Your task to perform on an android device: turn on location history Image 0: 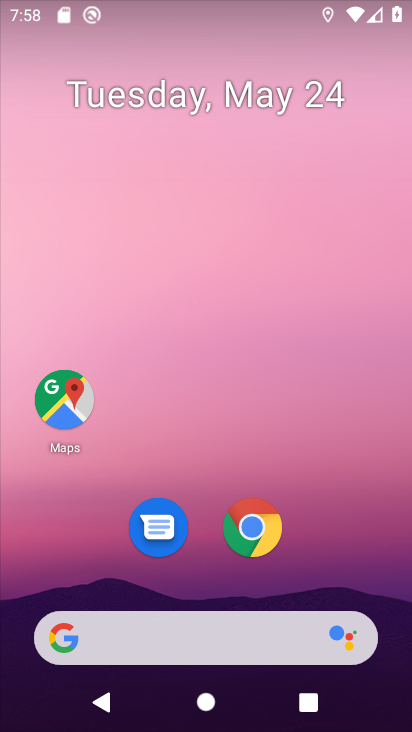
Step 0: drag from (301, 546) to (211, 177)
Your task to perform on an android device: turn on location history Image 1: 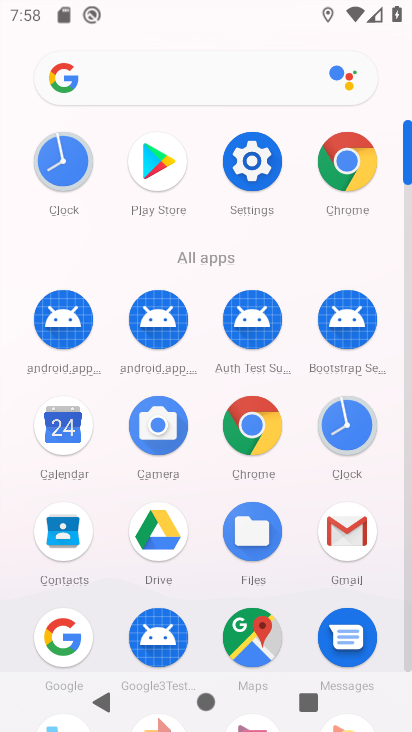
Step 1: click (240, 183)
Your task to perform on an android device: turn on location history Image 2: 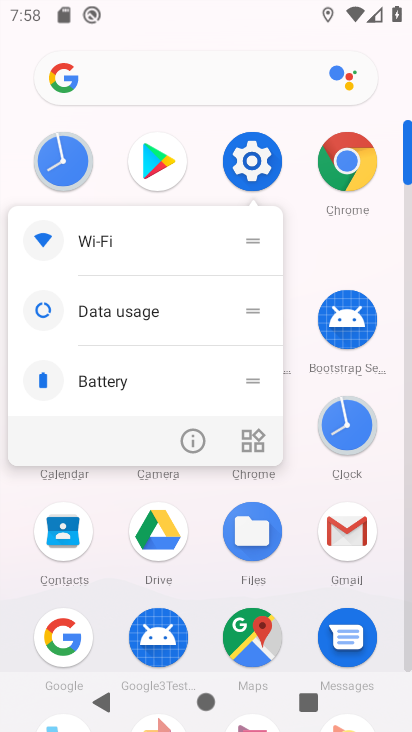
Step 2: click (245, 178)
Your task to perform on an android device: turn on location history Image 3: 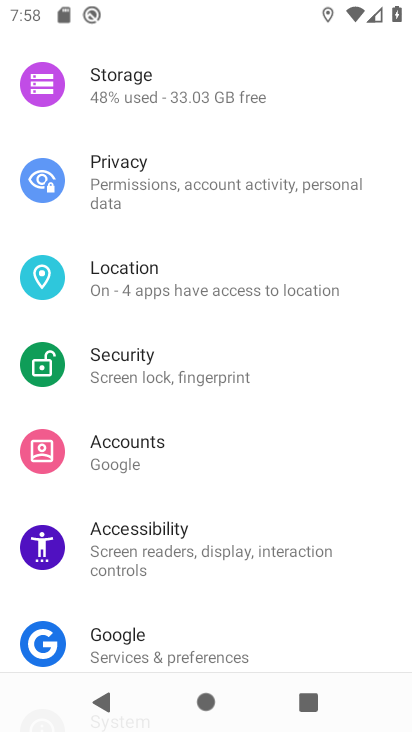
Step 3: click (151, 285)
Your task to perform on an android device: turn on location history Image 4: 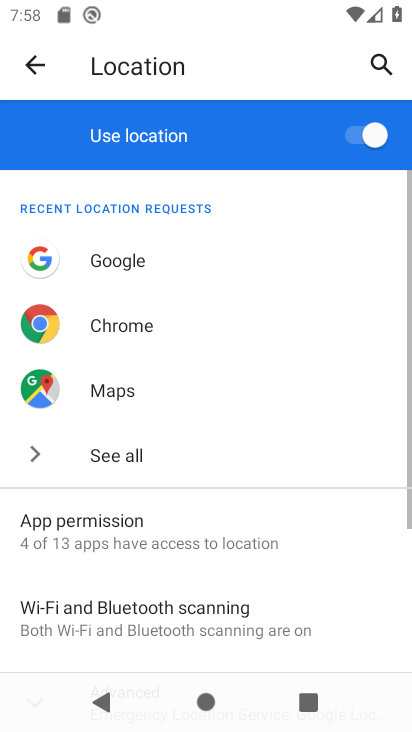
Step 4: click (114, 524)
Your task to perform on an android device: turn on location history Image 5: 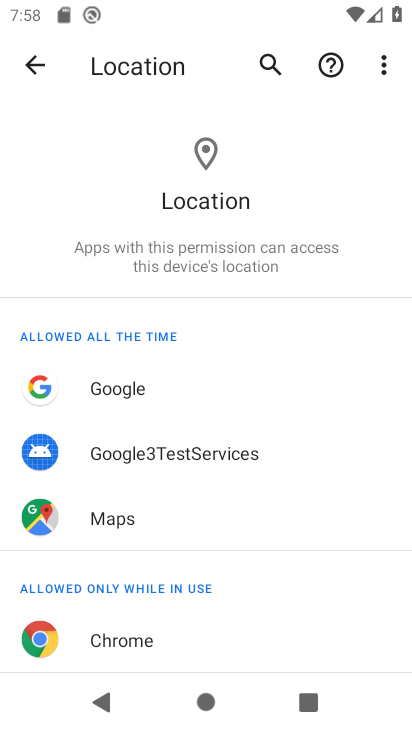
Step 5: drag from (279, 529) to (236, 322)
Your task to perform on an android device: turn on location history Image 6: 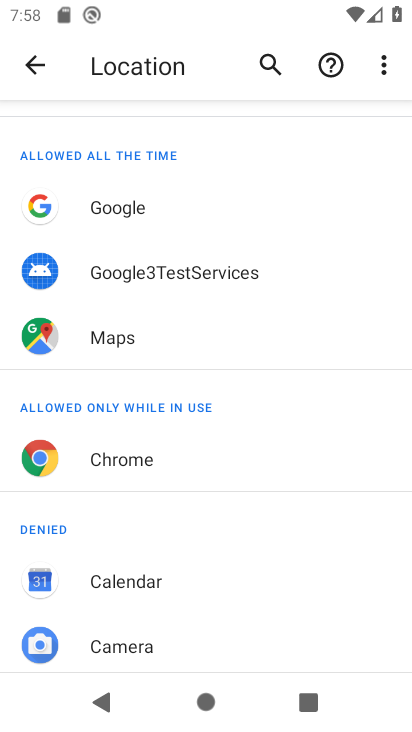
Step 6: drag from (178, 544) to (197, 131)
Your task to perform on an android device: turn on location history Image 7: 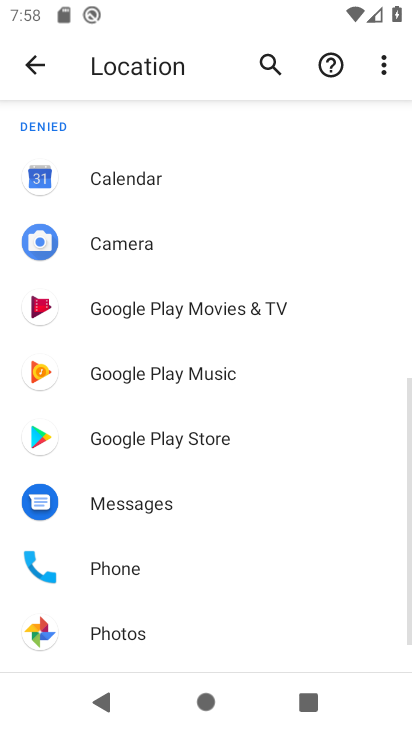
Step 7: click (41, 72)
Your task to perform on an android device: turn on location history Image 8: 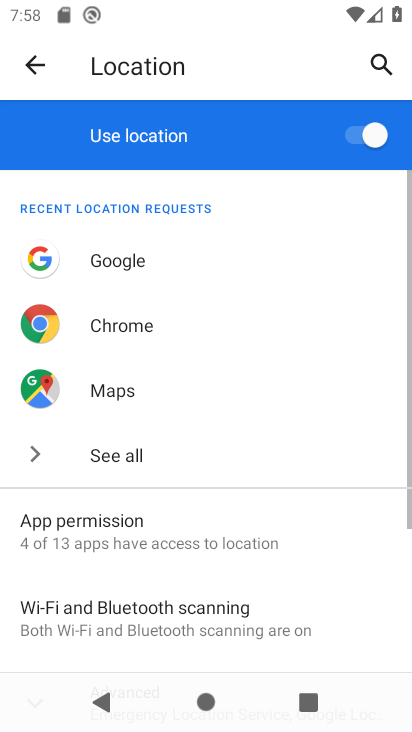
Step 8: drag from (188, 579) to (248, 262)
Your task to perform on an android device: turn on location history Image 9: 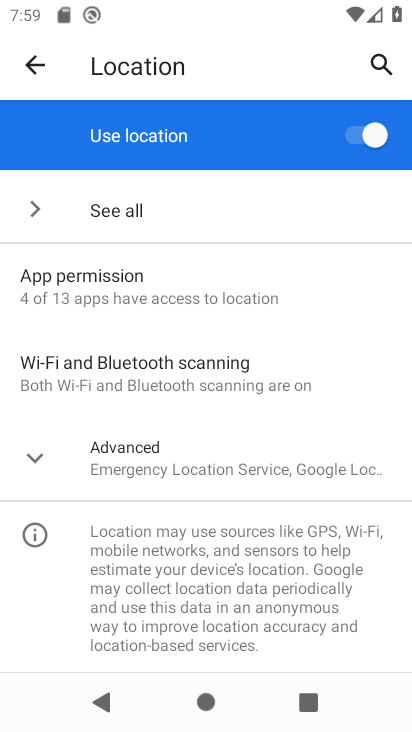
Step 9: click (192, 492)
Your task to perform on an android device: turn on location history Image 10: 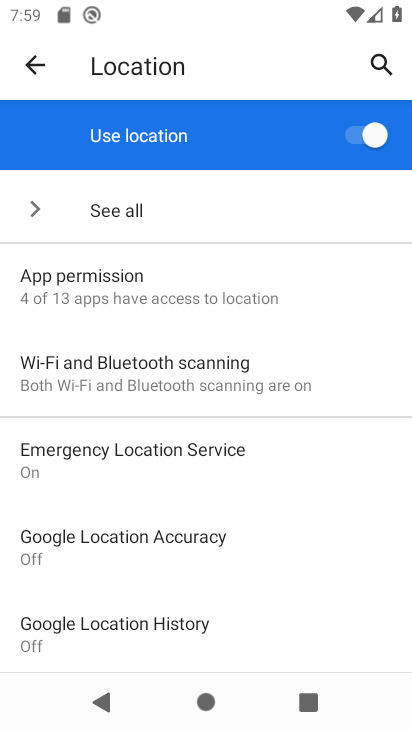
Step 10: click (179, 634)
Your task to perform on an android device: turn on location history Image 11: 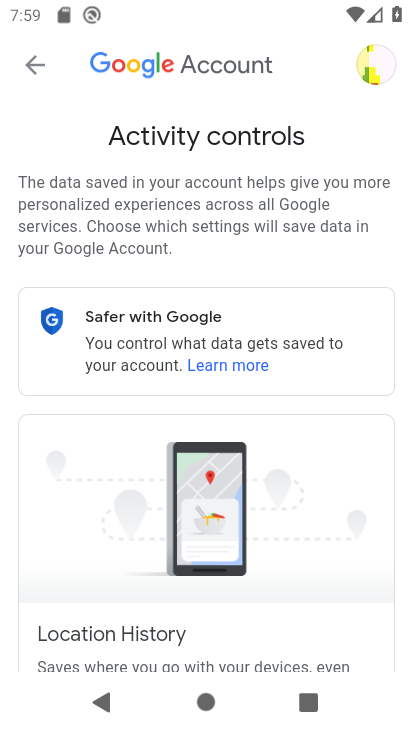
Step 11: task complete